Your task to perform on an android device: all mails in gmail Image 0: 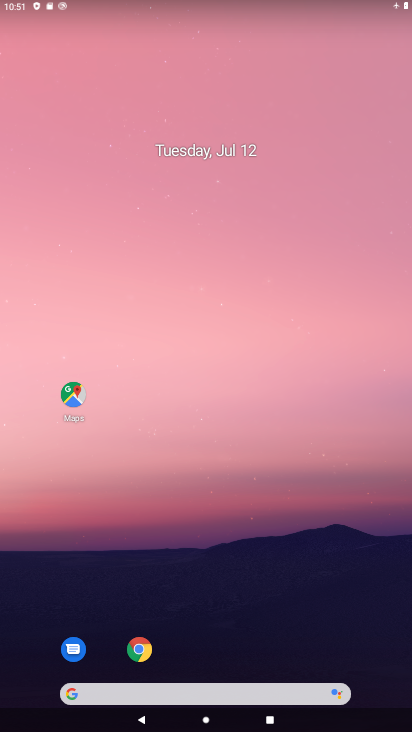
Step 0: drag from (382, 650) to (321, 165)
Your task to perform on an android device: all mails in gmail Image 1: 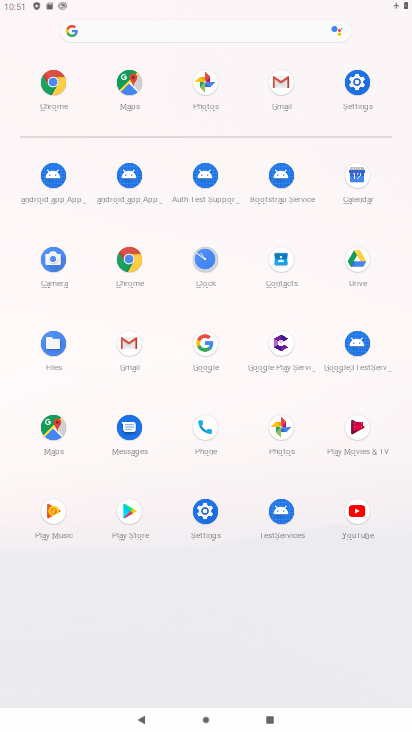
Step 1: click (125, 345)
Your task to perform on an android device: all mails in gmail Image 2: 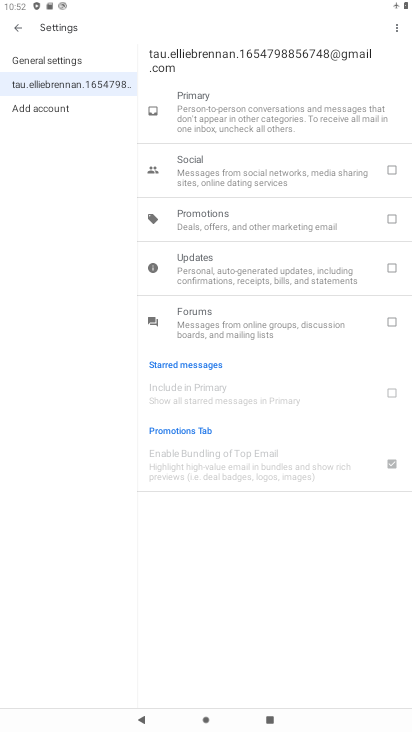
Step 2: press back button
Your task to perform on an android device: all mails in gmail Image 3: 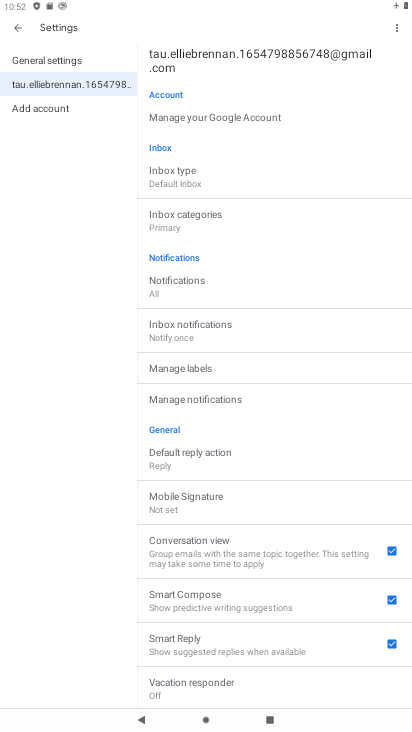
Step 3: press back button
Your task to perform on an android device: all mails in gmail Image 4: 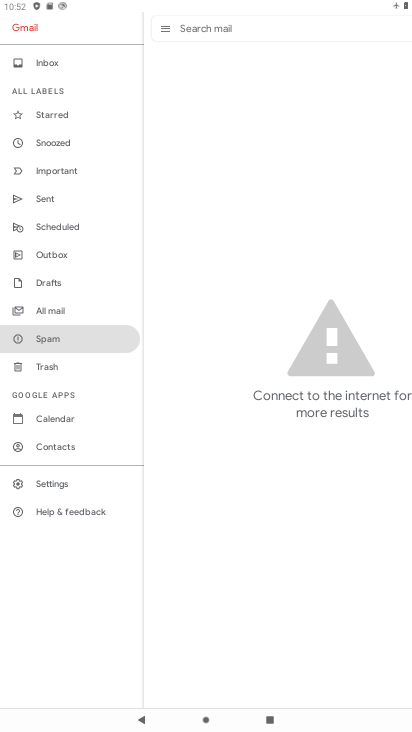
Step 4: click (55, 309)
Your task to perform on an android device: all mails in gmail Image 5: 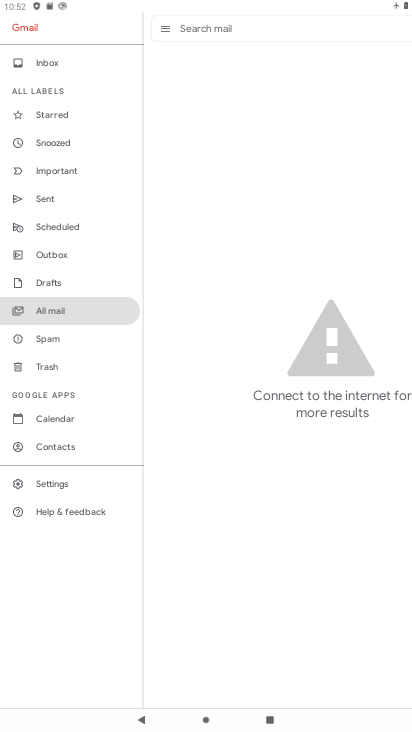
Step 5: task complete